Your task to perform on an android device: Go to notification settings Image 0: 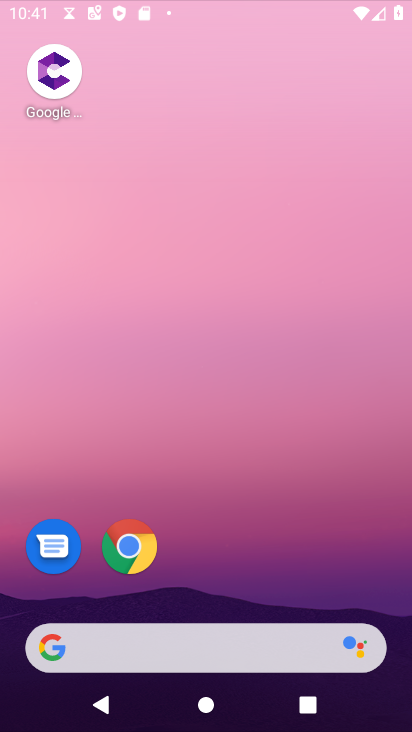
Step 0: drag from (296, 557) to (289, 118)
Your task to perform on an android device: Go to notification settings Image 1: 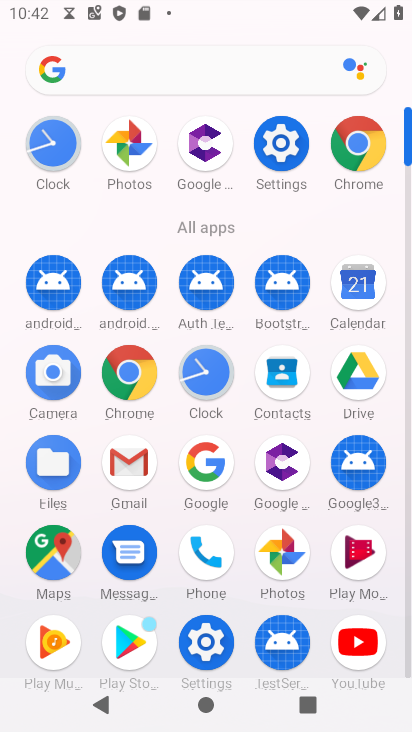
Step 1: click (269, 174)
Your task to perform on an android device: Go to notification settings Image 2: 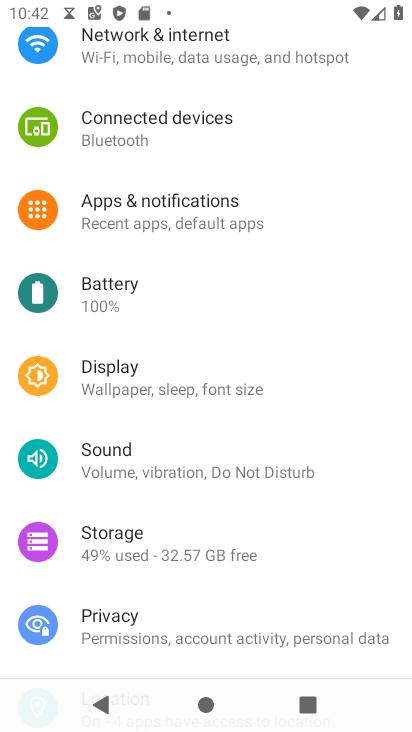
Step 2: drag from (189, 234) to (208, 527)
Your task to perform on an android device: Go to notification settings Image 3: 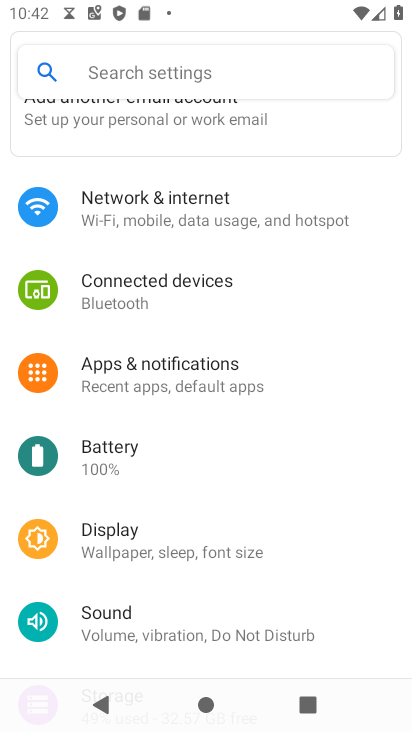
Step 3: click (135, 383)
Your task to perform on an android device: Go to notification settings Image 4: 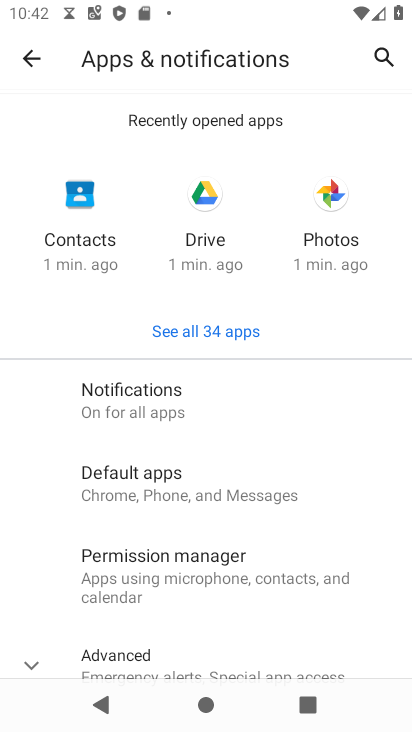
Step 4: click (135, 413)
Your task to perform on an android device: Go to notification settings Image 5: 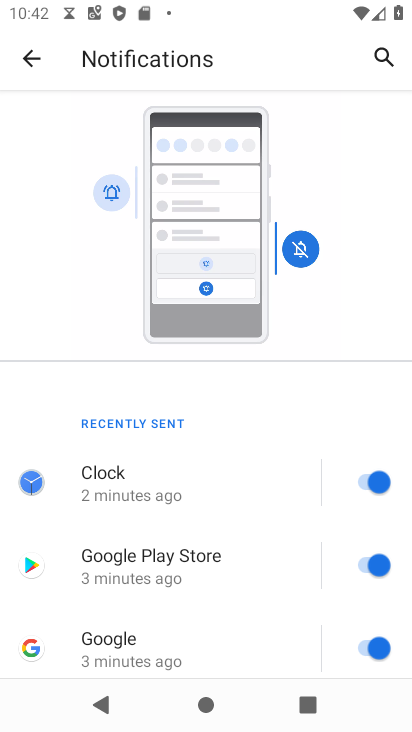
Step 5: drag from (214, 595) to (262, 365)
Your task to perform on an android device: Go to notification settings Image 6: 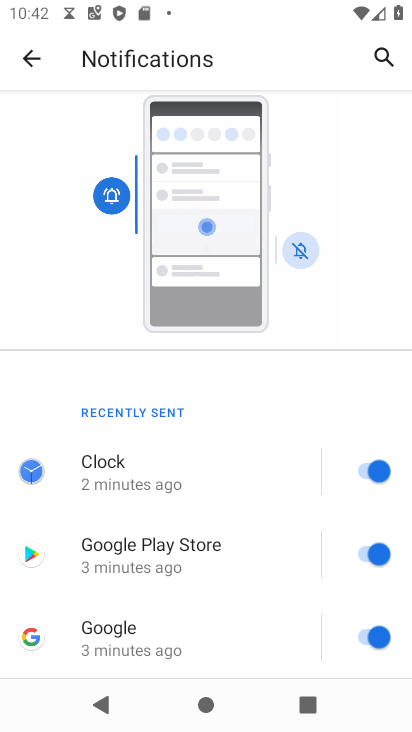
Step 6: drag from (226, 597) to (239, 309)
Your task to perform on an android device: Go to notification settings Image 7: 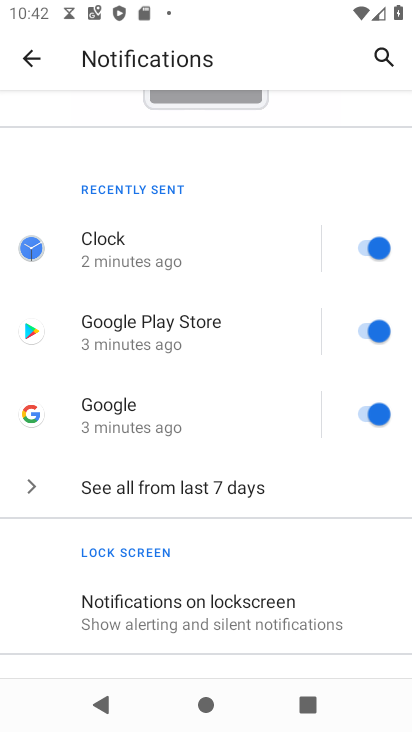
Step 7: drag from (170, 571) to (194, 271)
Your task to perform on an android device: Go to notification settings Image 8: 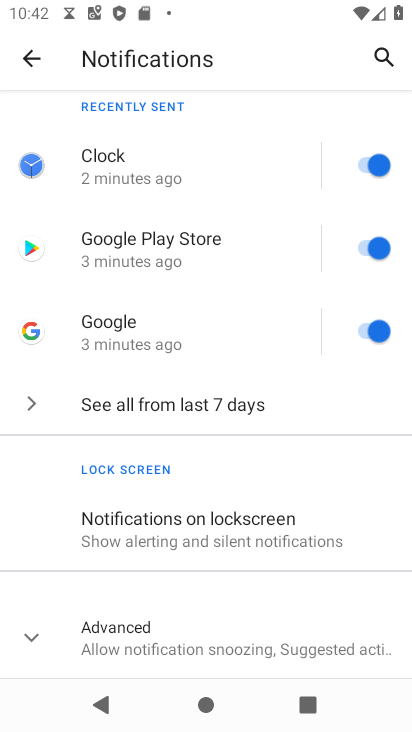
Step 8: click (116, 634)
Your task to perform on an android device: Go to notification settings Image 9: 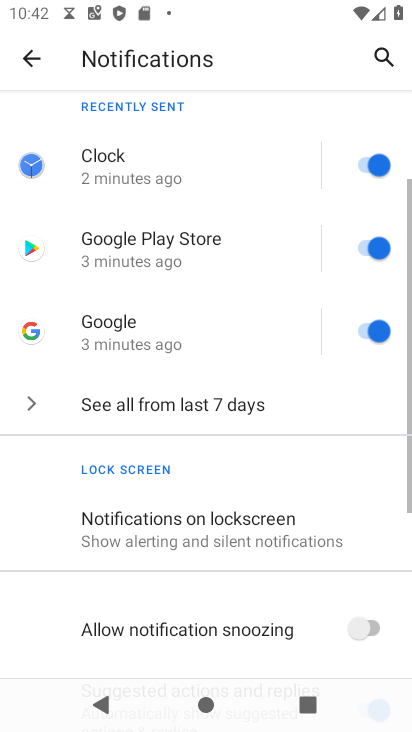
Step 9: task complete